Your task to perform on an android device: change the clock display to analog Image 0: 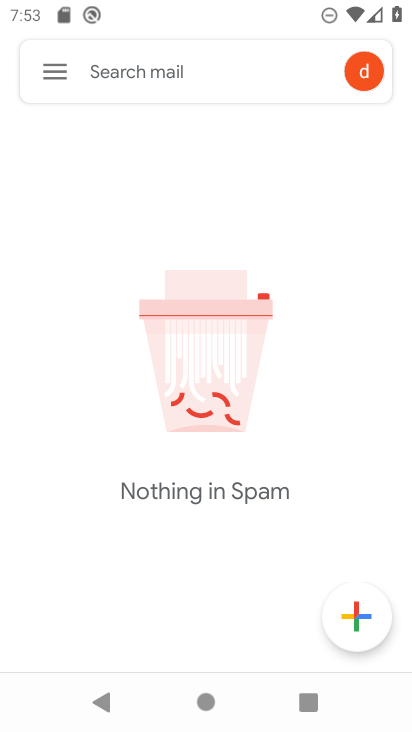
Step 0: press home button
Your task to perform on an android device: change the clock display to analog Image 1: 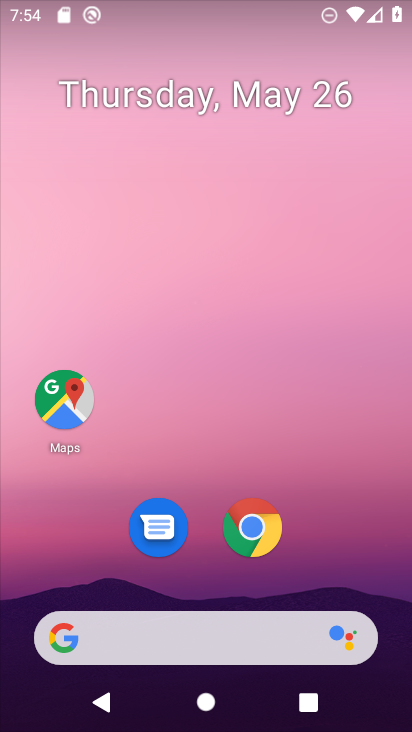
Step 1: drag from (3, 712) to (224, 130)
Your task to perform on an android device: change the clock display to analog Image 2: 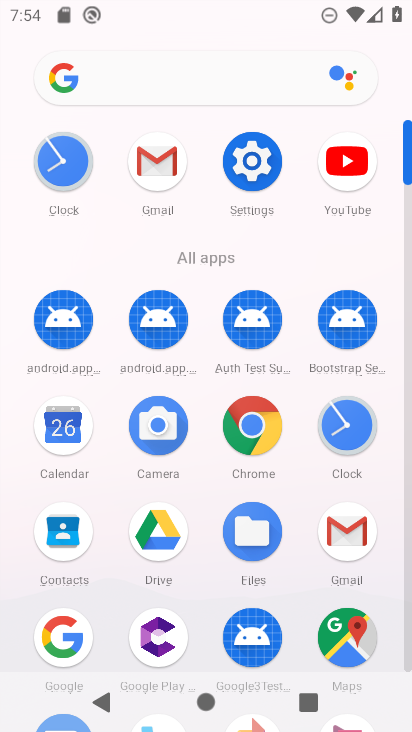
Step 2: click (364, 421)
Your task to perform on an android device: change the clock display to analog Image 3: 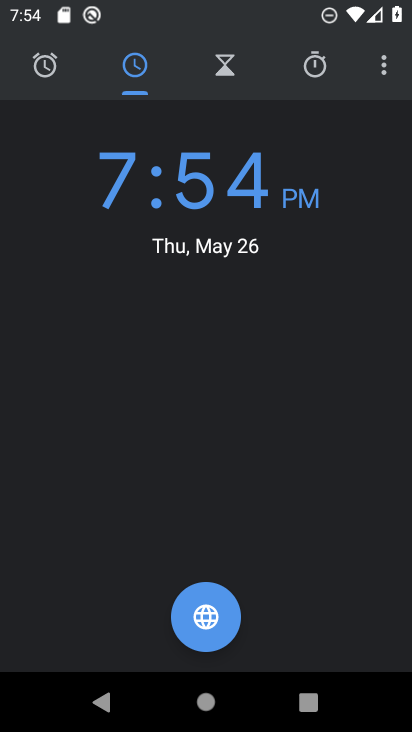
Step 3: click (379, 70)
Your task to perform on an android device: change the clock display to analog Image 4: 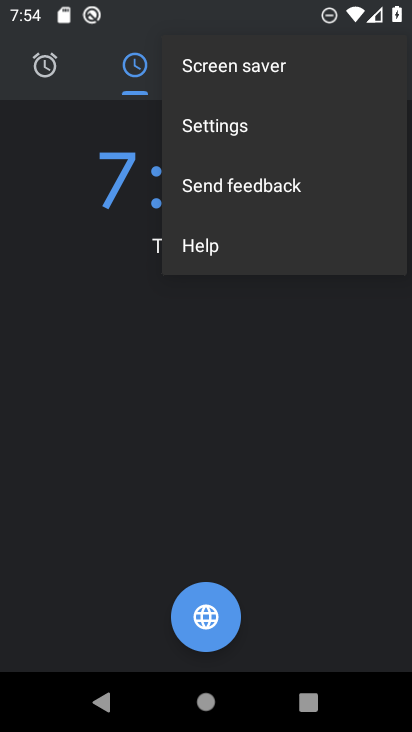
Step 4: click (336, 116)
Your task to perform on an android device: change the clock display to analog Image 5: 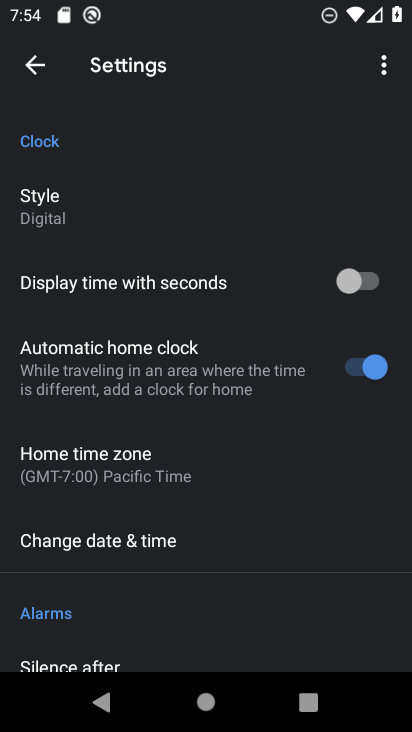
Step 5: click (94, 201)
Your task to perform on an android device: change the clock display to analog Image 6: 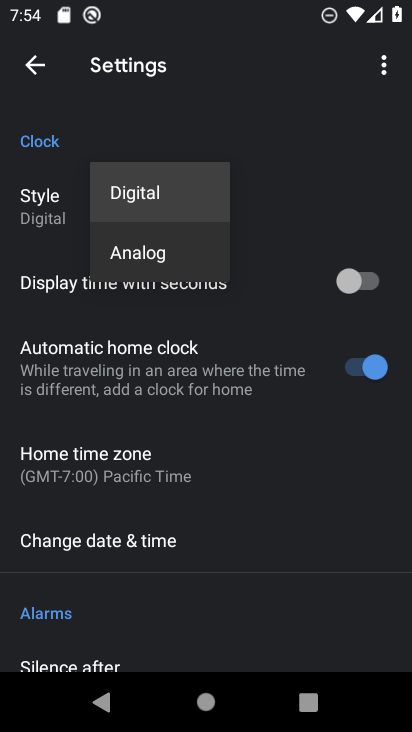
Step 6: click (145, 259)
Your task to perform on an android device: change the clock display to analog Image 7: 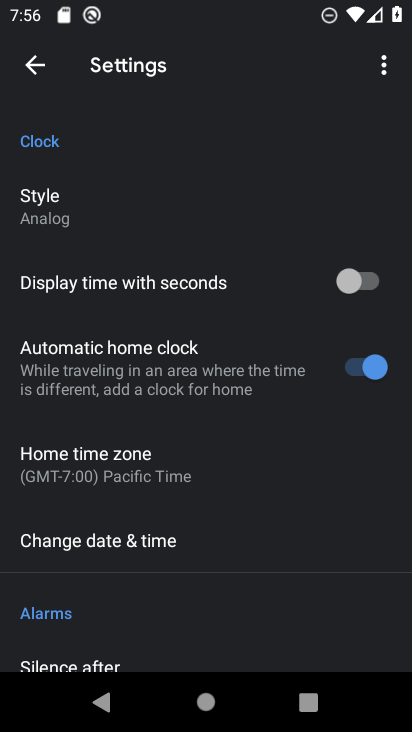
Step 7: task complete